Your task to perform on an android device: check the backup settings in the google photos Image 0: 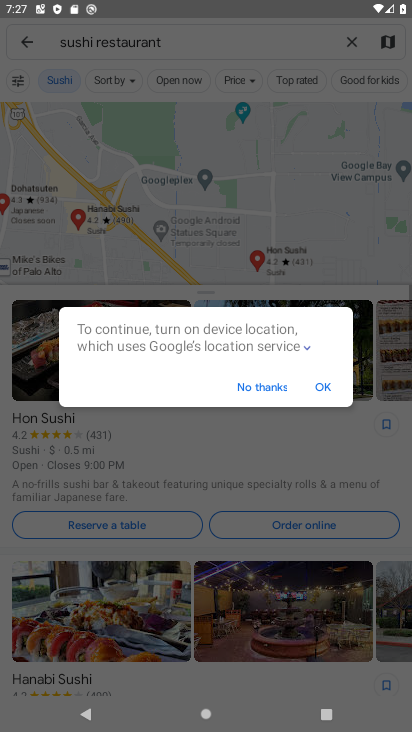
Step 0: click (328, 384)
Your task to perform on an android device: check the backup settings in the google photos Image 1: 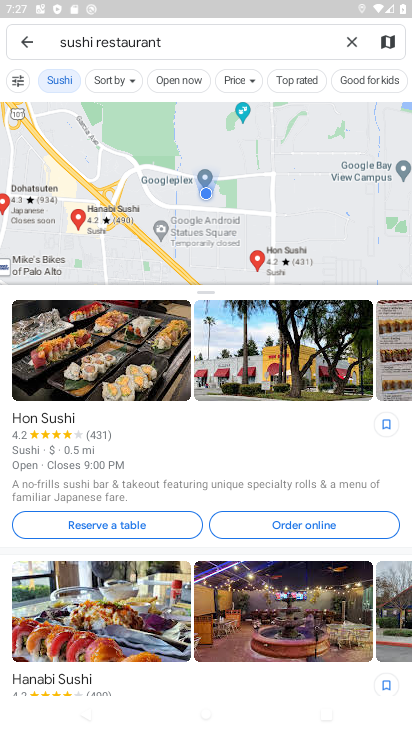
Step 1: press home button
Your task to perform on an android device: check the backup settings in the google photos Image 2: 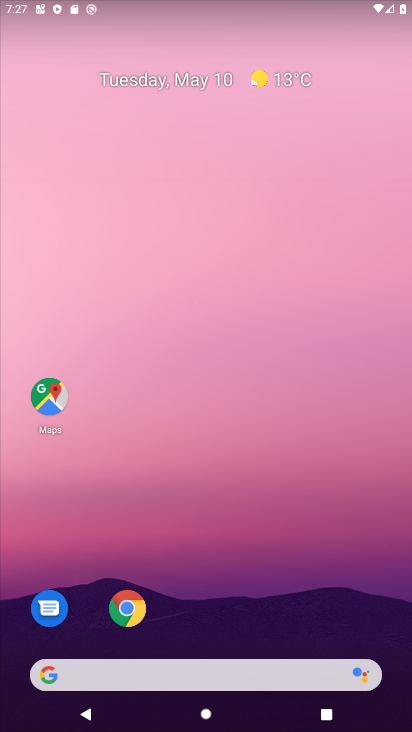
Step 2: drag from (192, 603) to (194, 290)
Your task to perform on an android device: check the backup settings in the google photos Image 3: 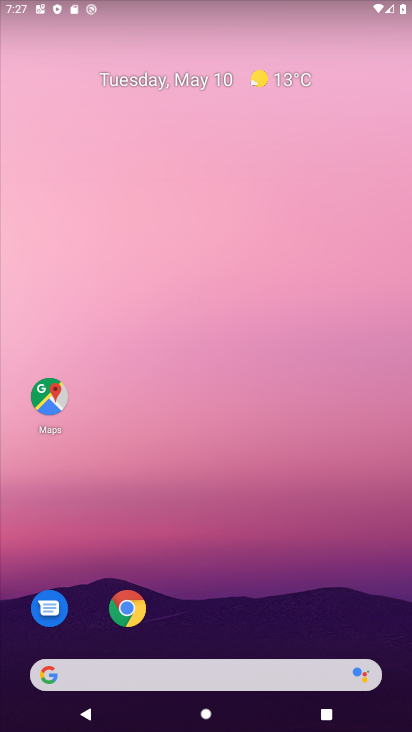
Step 3: drag from (247, 642) to (231, 0)
Your task to perform on an android device: check the backup settings in the google photos Image 4: 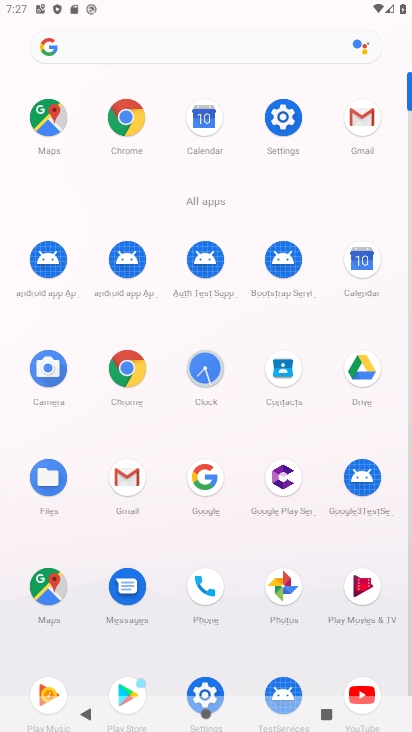
Step 4: click (284, 596)
Your task to perform on an android device: check the backup settings in the google photos Image 5: 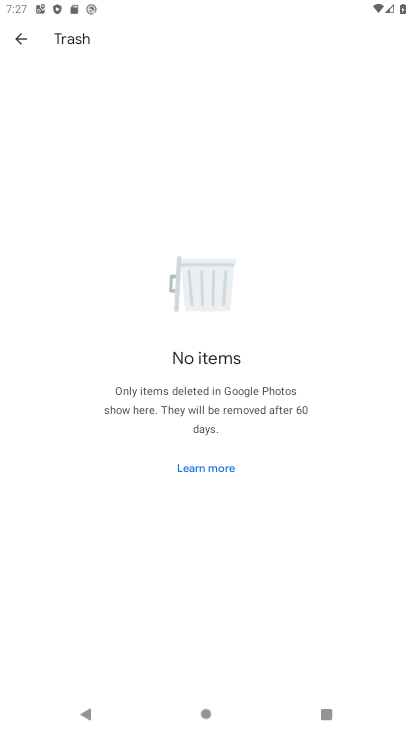
Step 5: click (9, 47)
Your task to perform on an android device: check the backup settings in the google photos Image 6: 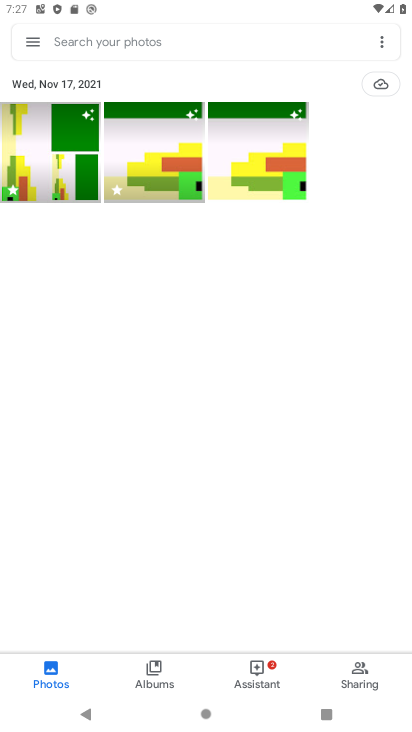
Step 6: click (35, 42)
Your task to perform on an android device: check the backup settings in the google photos Image 7: 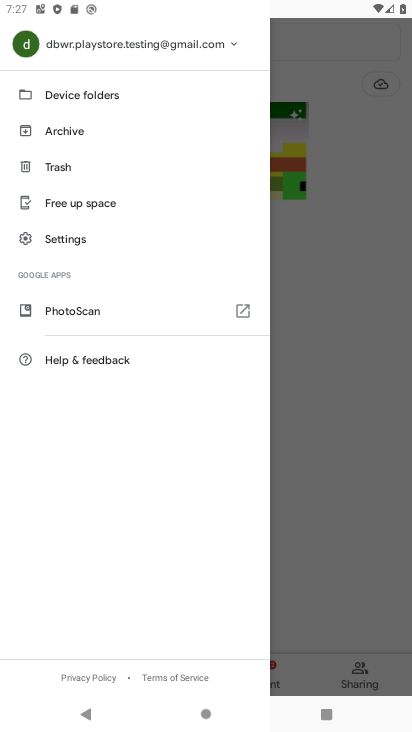
Step 7: click (95, 242)
Your task to perform on an android device: check the backup settings in the google photos Image 8: 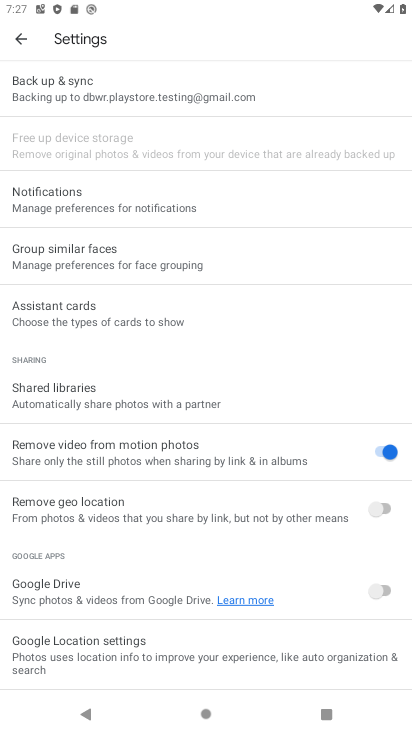
Step 8: click (137, 87)
Your task to perform on an android device: check the backup settings in the google photos Image 9: 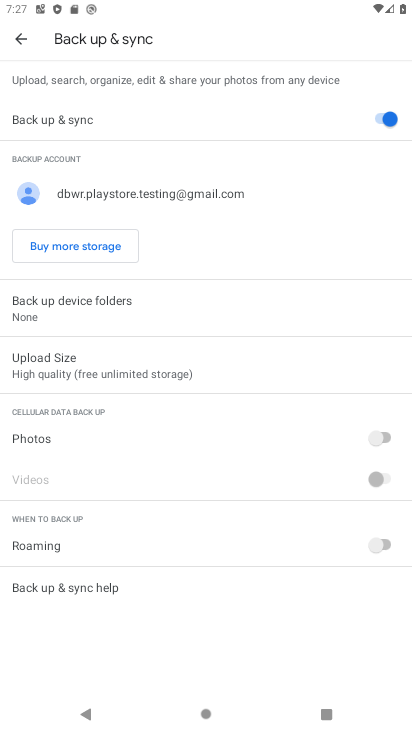
Step 9: task complete